Your task to perform on an android device: add a contact in the contacts app Image 0: 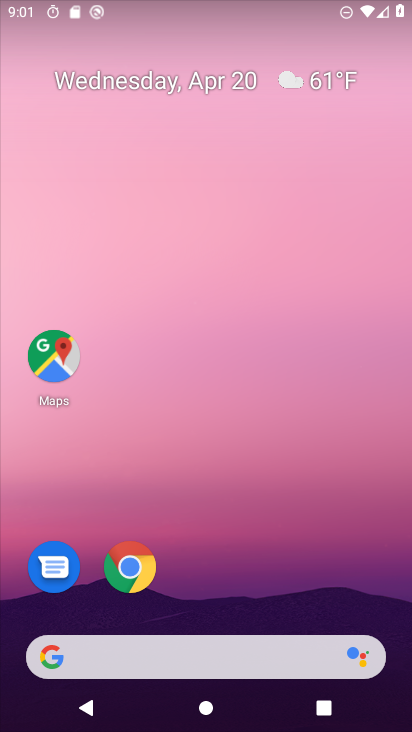
Step 0: drag from (366, 565) to (387, 37)
Your task to perform on an android device: add a contact in the contacts app Image 1: 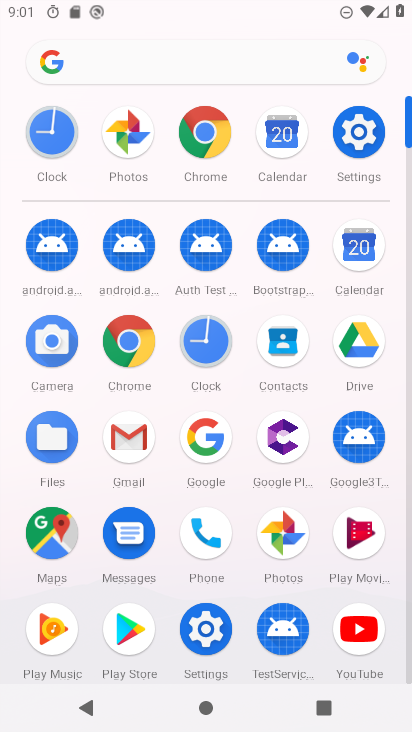
Step 1: click (278, 347)
Your task to perform on an android device: add a contact in the contacts app Image 2: 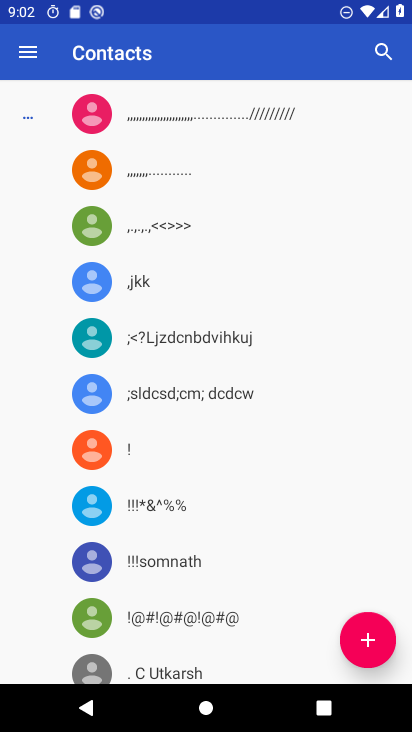
Step 2: click (369, 647)
Your task to perform on an android device: add a contact in the contacts app Image 3: 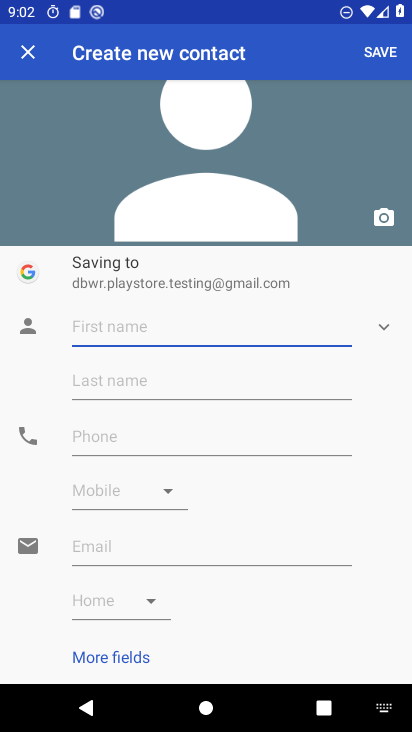
Step 3: click (175, 333)
Your task to perform on an android device: add a contact in the contacts app Image 4: 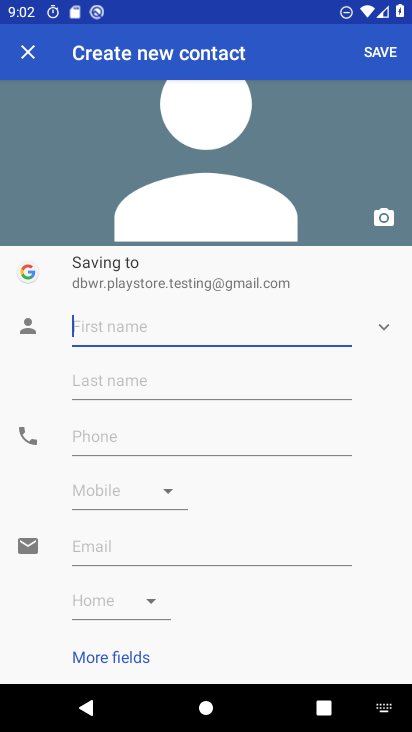
Step 4: type "navya"
Your task to perform on an android device: add a contact in the contacts app Image 5: 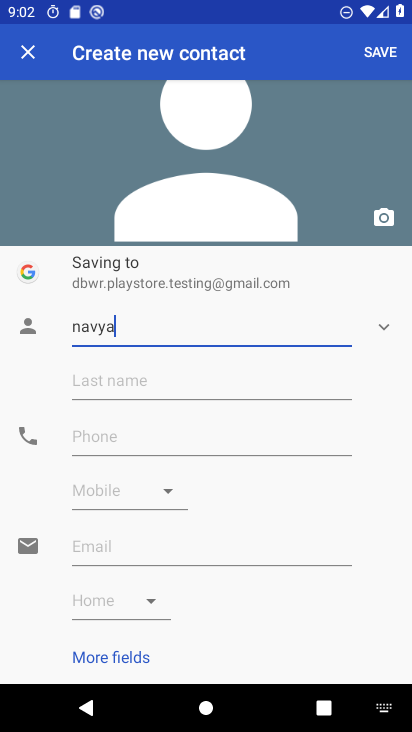
Step 5: click (297, 432)
Your task to perform on an android device: add a contact in the contacts app Image 6: 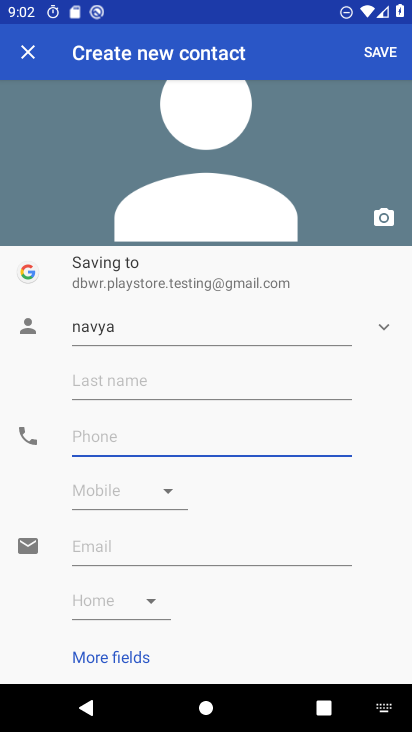
Step 6: type "87698769876"
Your task to perform on an android device: add a contact in the contacts app Image 7: 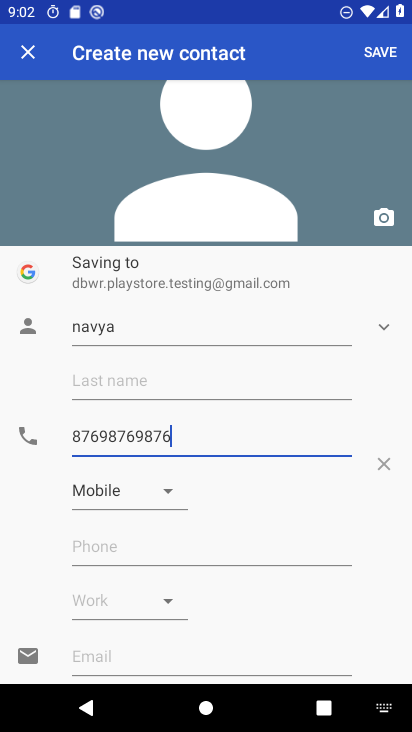
Step 7: click (396, 53)
Your task to perform on an android device: add a contact in the contacts app Image 8: 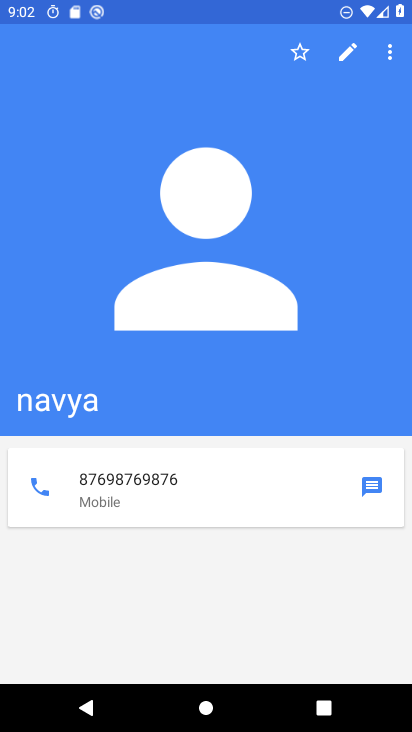
Step 8: task complete